Your task to perform on an android device: clear all cookies in the chrome app Image 0: 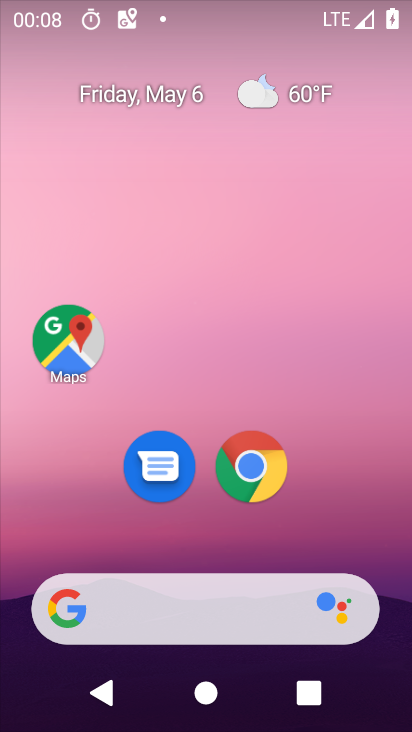
Step 0: click (250, 474)
Your task to perform on an android device: clear all cookies in the chrome app Image 1: 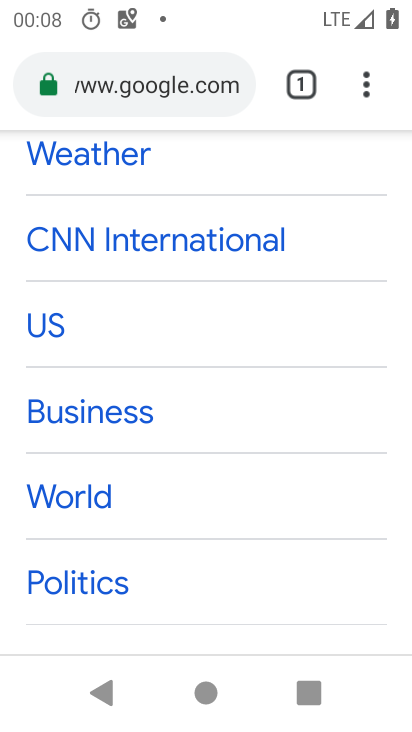
Step 1: click (364, 83)
Your task to perform on an android device: clear all cookies in the chrome app Image 2: 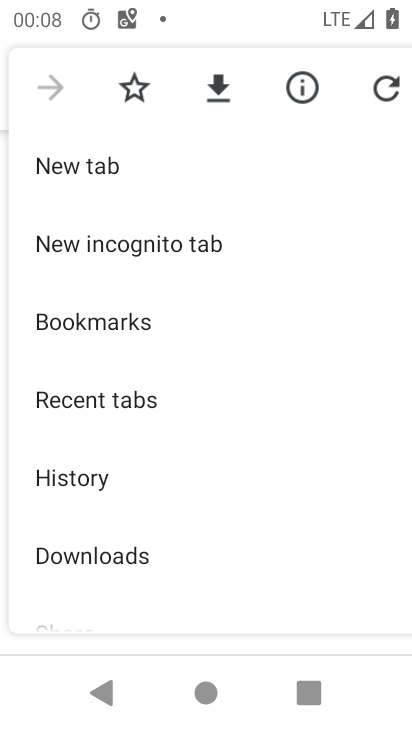
Step 2: click (85, 483)
Your task to perform on an android device: clear all cookies in the chrome app Image 3: 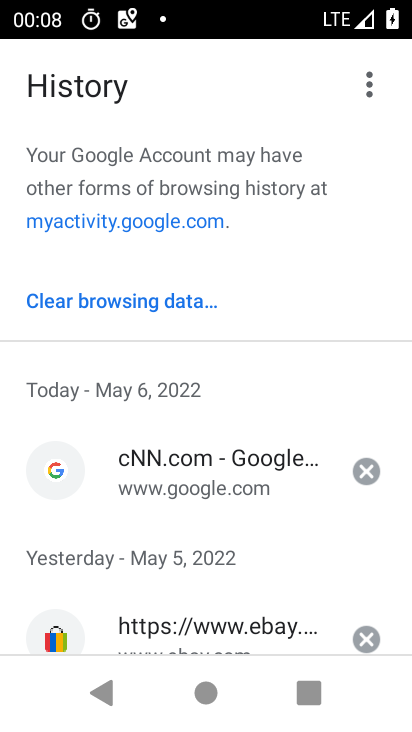
Step 3: click (107, 298)
Your task to perform on an android device: clear all cookies in the chrome app Image 4: 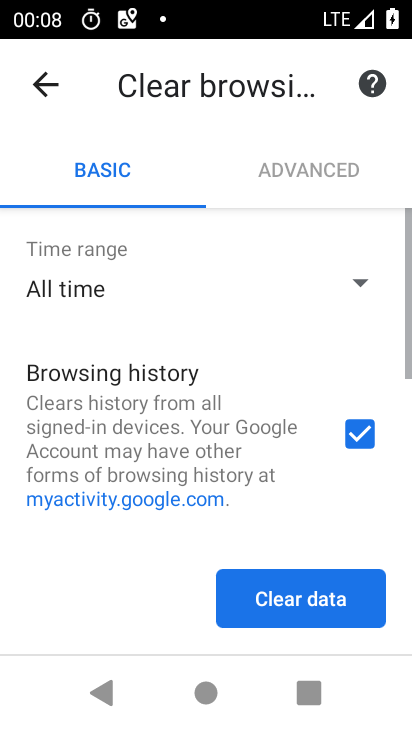
Step 4: click (350, 436)
Your task to perform on an android device: clear all cookies in the chrome app Image 5: 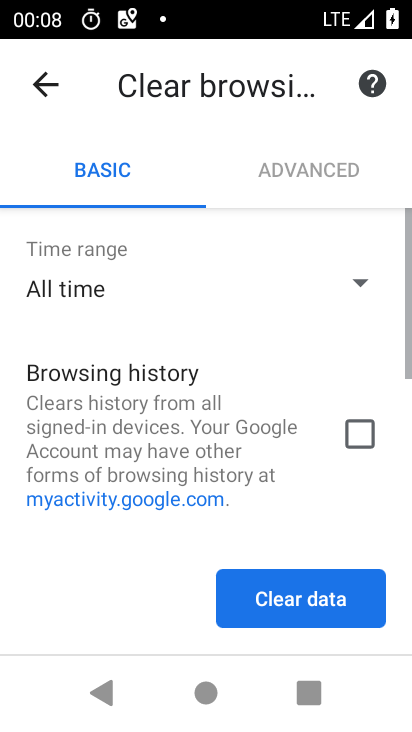
Step 5: drag from (85, 548) to (87, 277)
Your task to perform on an android device: clear all cookies in the chrome app Image 6: 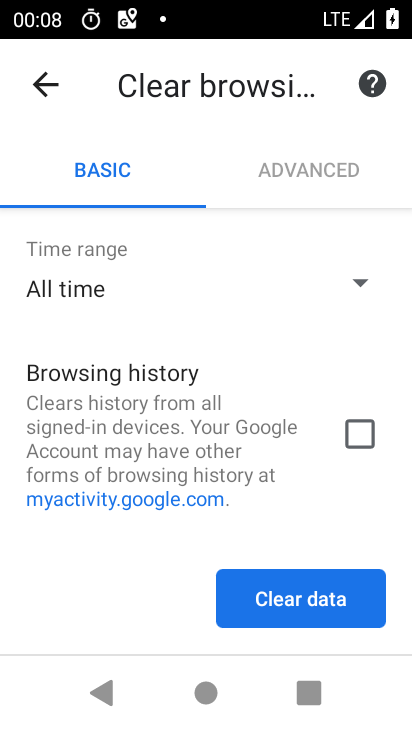
Step 6: drag from (254, 476) to (270, 214)
Your task to perform on an android device: clear all cookies in the chrome app Image 7: 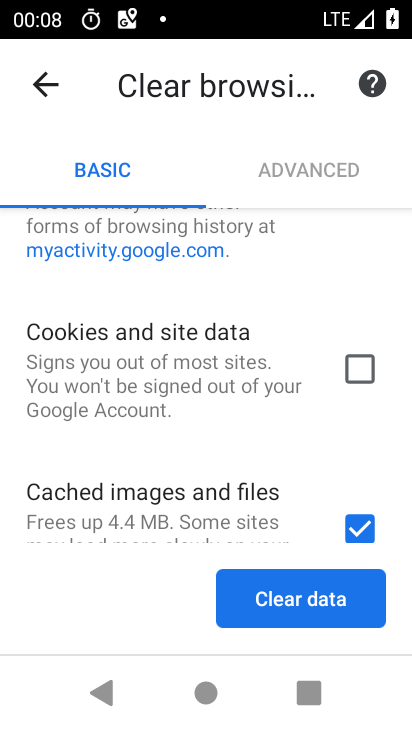
Step 7: click (352, 529)
Your task to perform on an android device: clear all cookies in the chrome app Image 8: 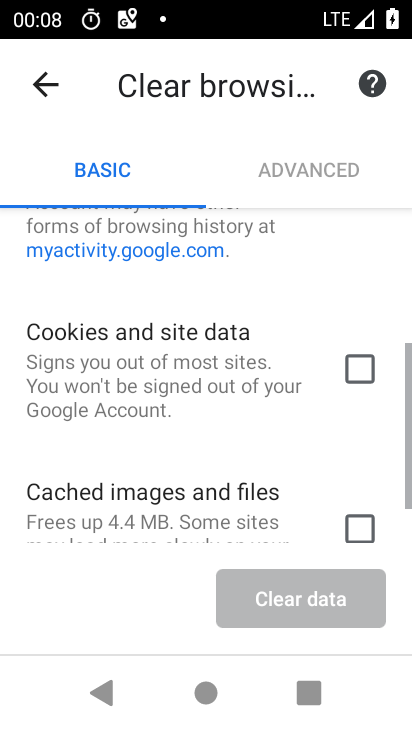
Step 8: click (360, 372)
Your task to perform on an android device: clear all cookies in the chrome app Image 9: 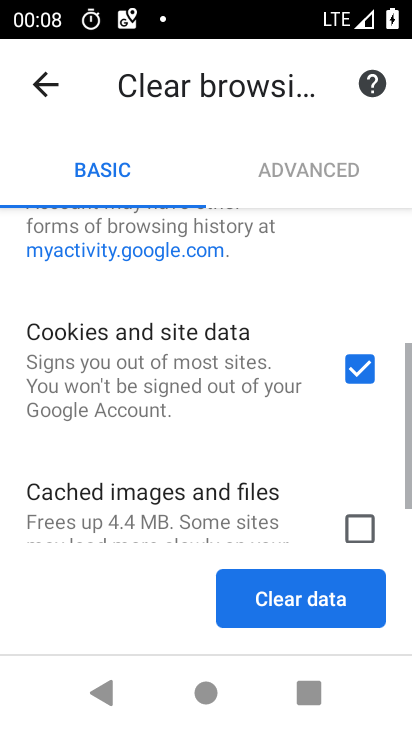
Step 9: click (337, 594)
Your task to perform on an android device: clear all cookies in the chrome app Image 10: 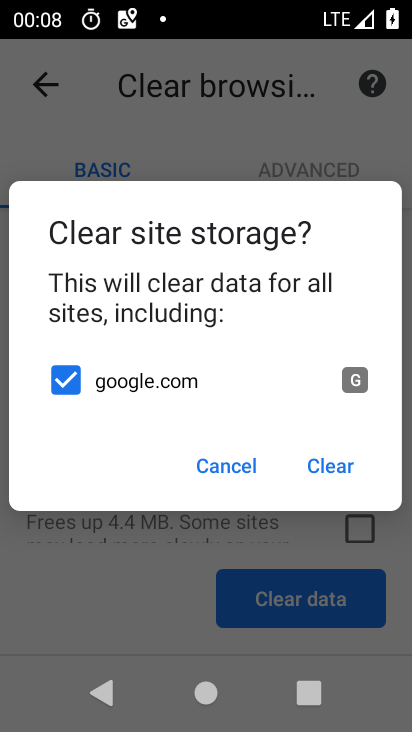
Step 10: click (356, 461)
Your task to perform on an android device: clear all cookies in the chrome app Image 11: 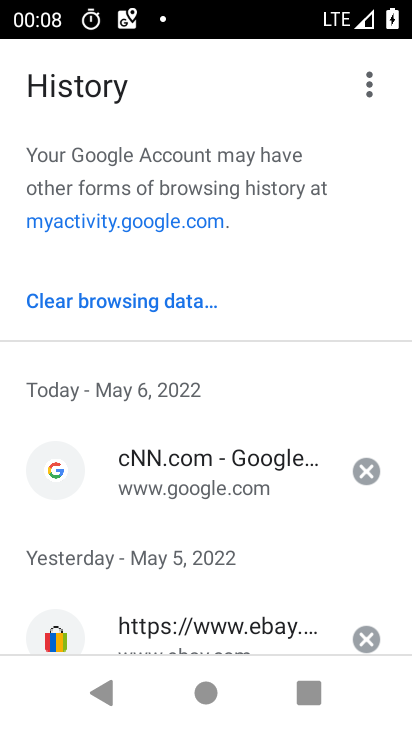
Step 11: task complete